Your task to perform on an android device: find photos in the google photos app Image 0: 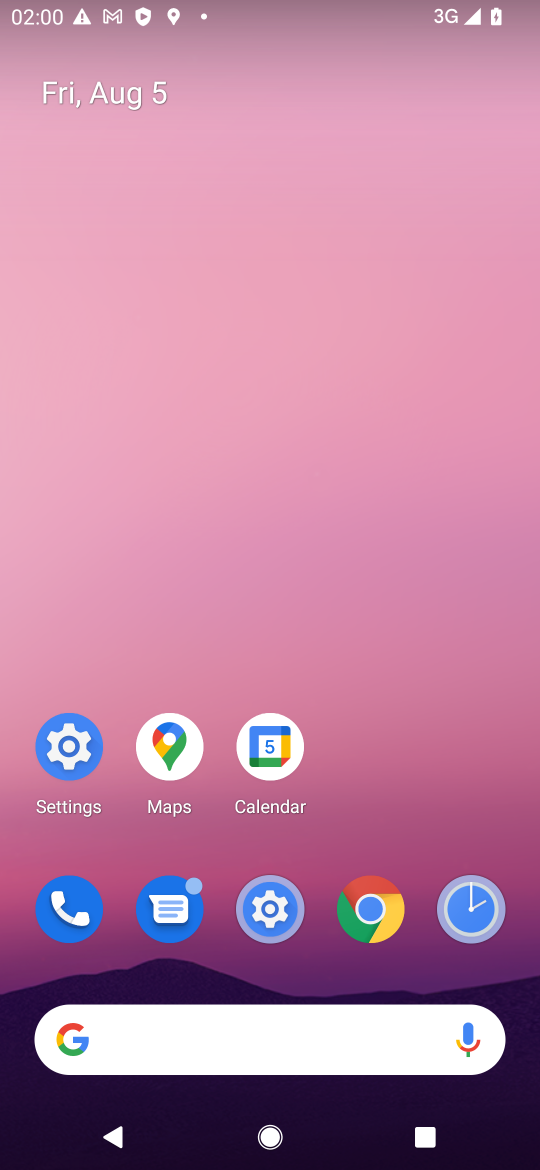
Step 0: drag from (357, 839) to (361, 209)
Your task to perform on an android device: find photos in the google photos app Image 1: 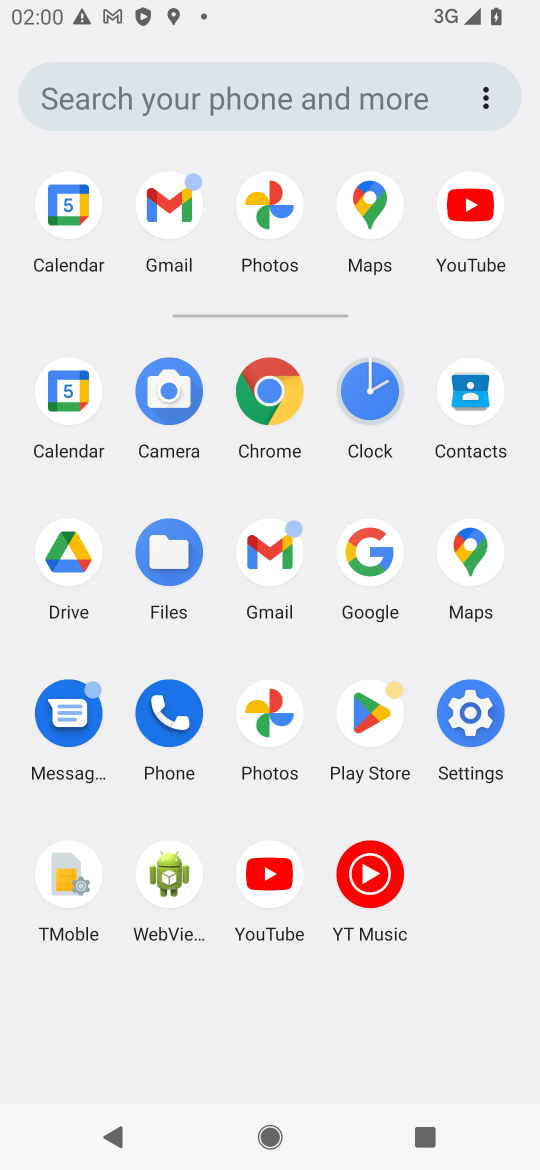
Step 1: click (271, 201)
Your task to perform on an android device: find photos in the google photos app Image 2: 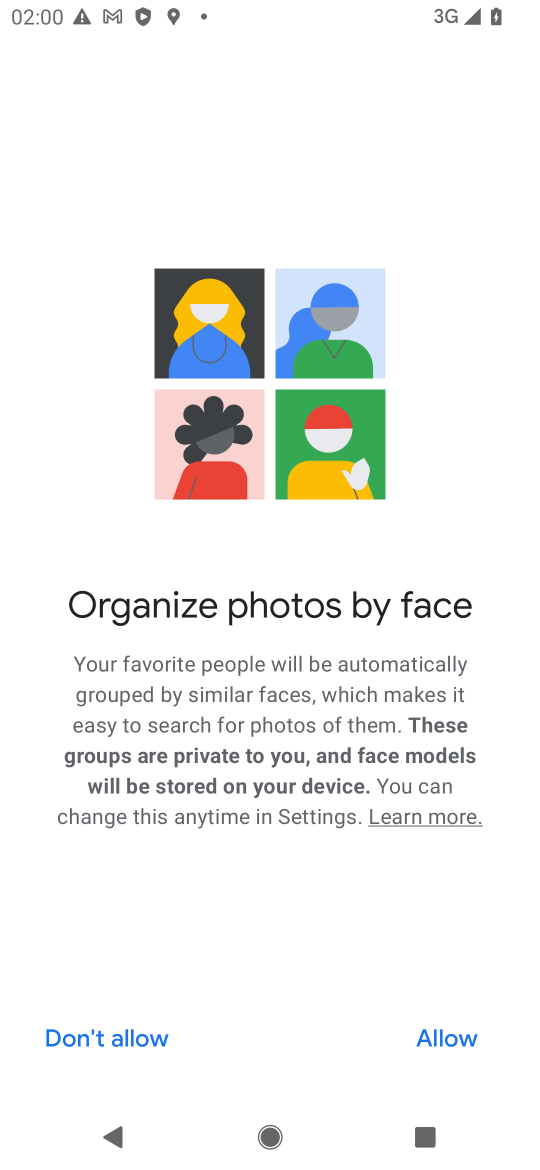
Step 2: click (457, 1026)
Your task to perform on an android device: find photos in the google photos app Image 3: 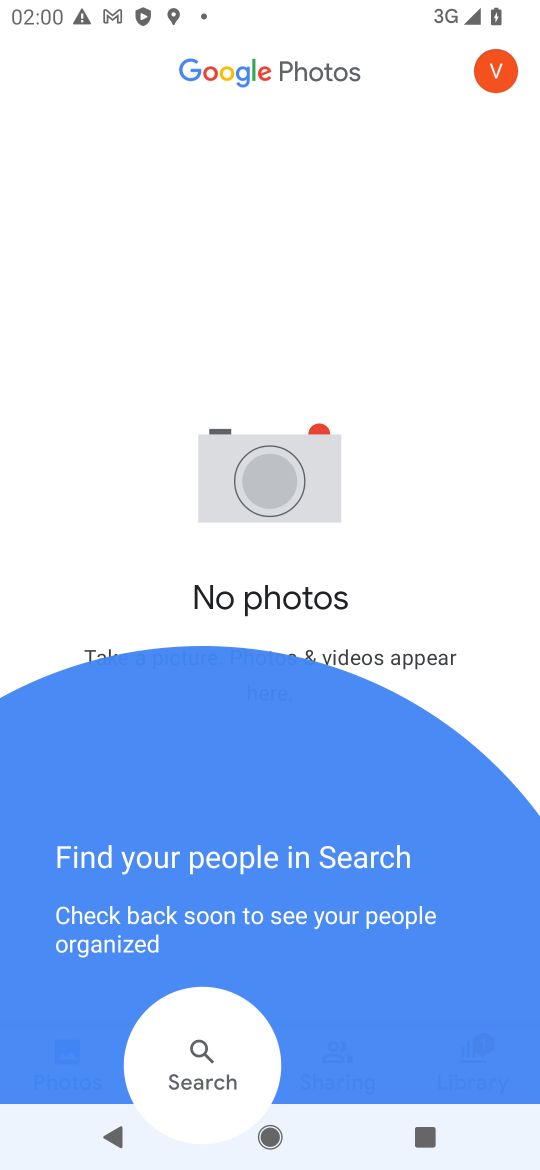
Step 3: click (239, 805)
Your task to perform on an android device: find photos in the google photos app Image 4: 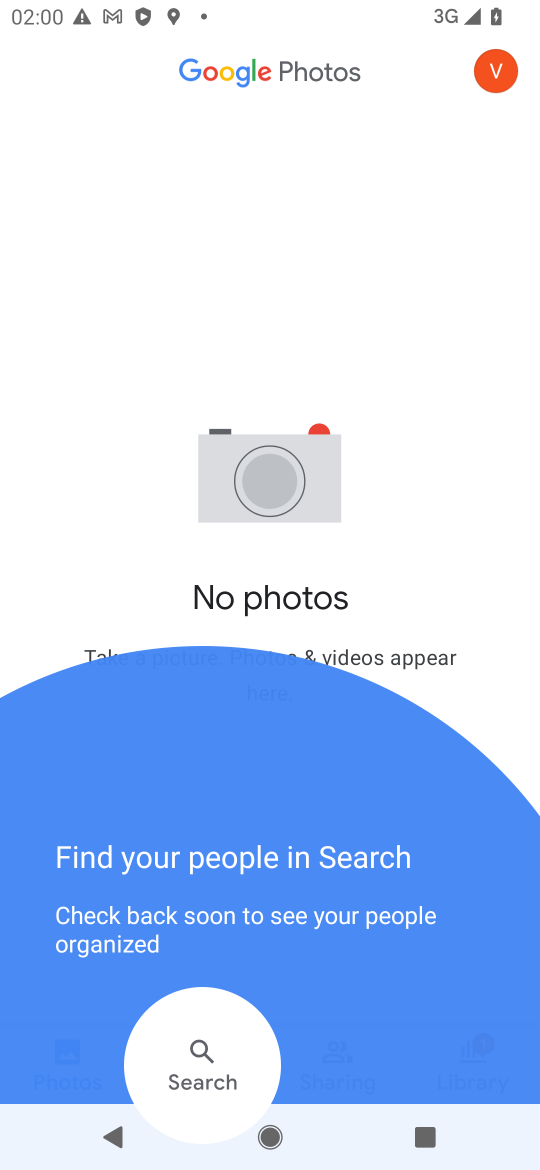
Step 4: click (180, 1056)
Your task to perform on an android device: find photos in the google photos app Image 5: 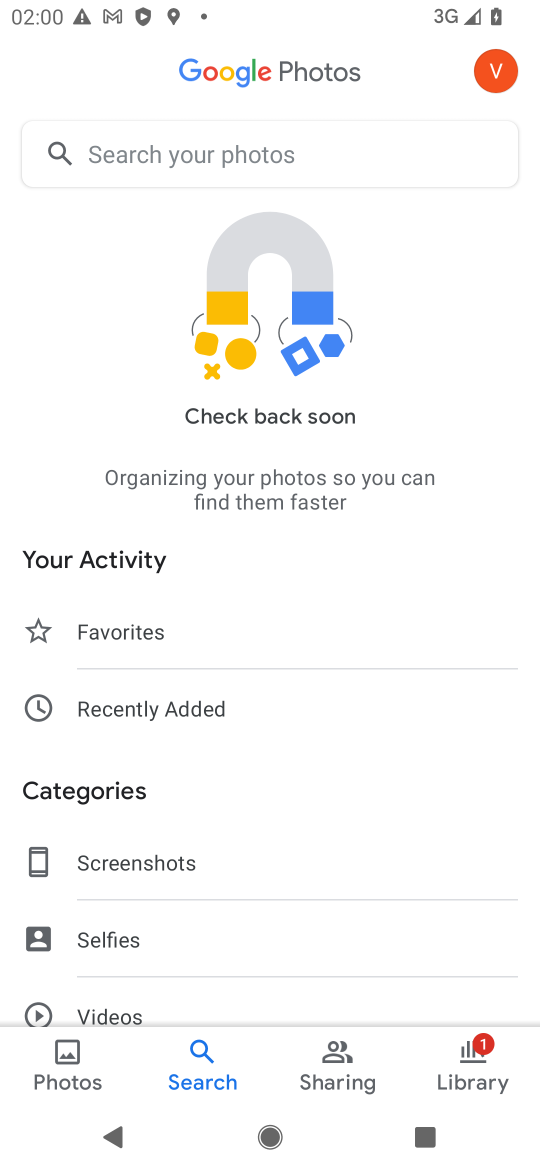
Step 5: click (59, 1060)
Your task to perform on an android device: find photos in the google photos app Image 6: 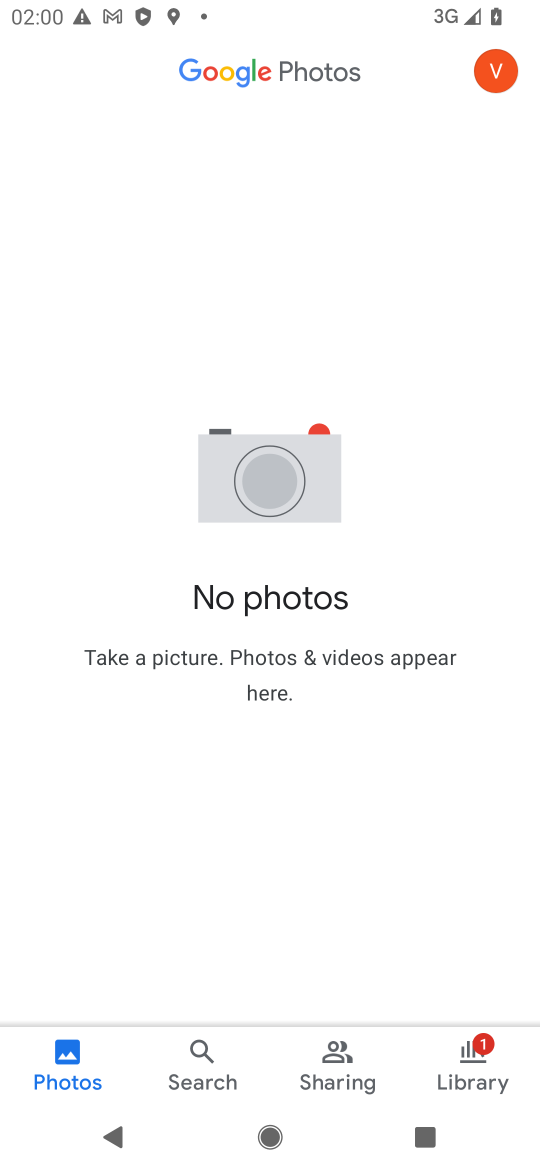
Step 6: click (199, 1060)
Your task to perform on an android device: find photos in the google photos app Image 7: 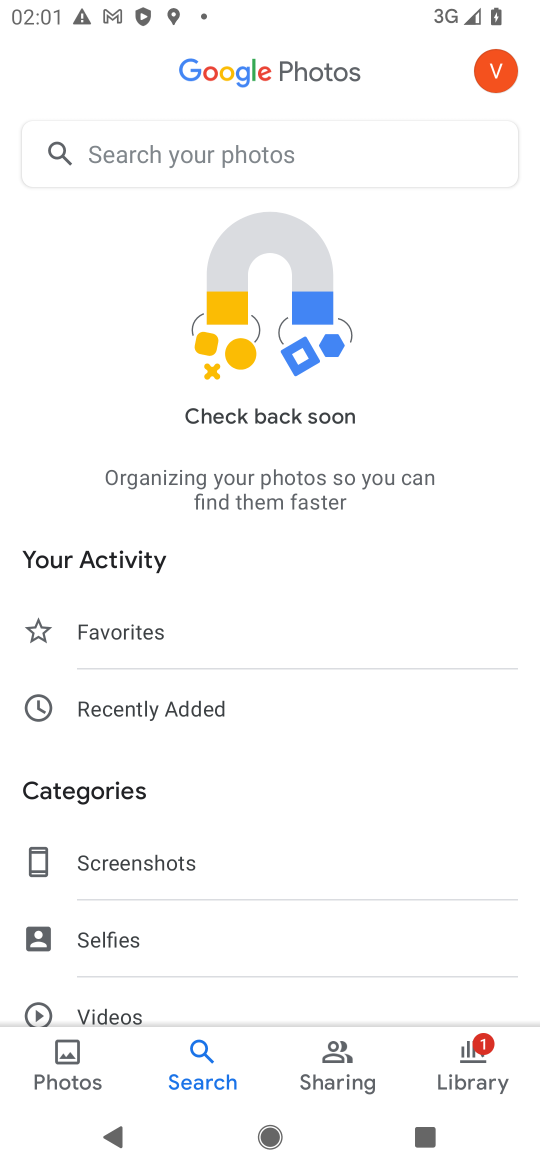
Step 7: task complete